Your task to perform on an android device: make emails show in primary in the gmail app Image 0: 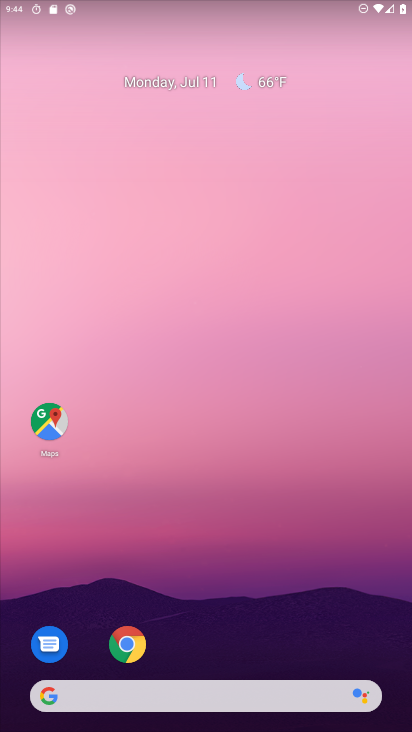
Step 0: drag from (190, 586) to (232, 150)
Your task to perform on an android device: make emails show in primary in the gmail app Image 1: 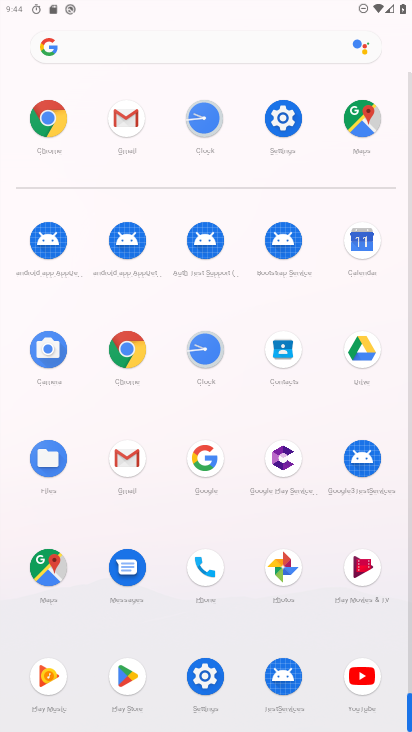
Step 1: click (133, 119)
Your task to perform on an android device: make emails show in primary in the gmail app Image 2: 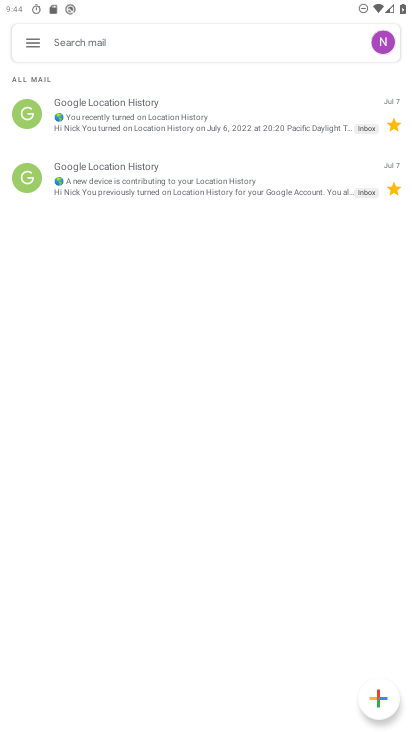
Step 2: click (36, 42)
Your task to perform on an android device: make emails show in primary in the gmail app Image 3: 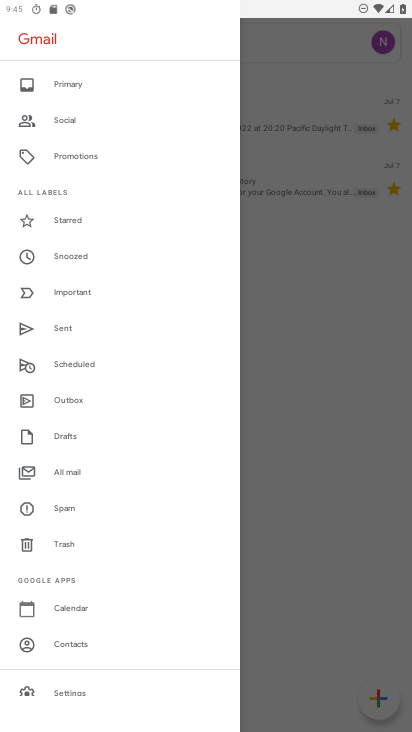
Step 3: drag from (115, 648) to (165, 225)
Your task to perform on an android device: make emails show in primary in the gmail app Image 4: 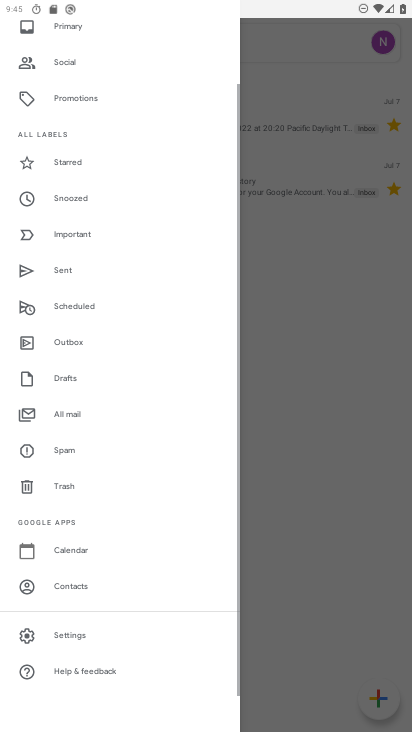
Step 4: click (78, 636)
Your task to perform on an android device: make emails show in primary in the gmail app Image 5: 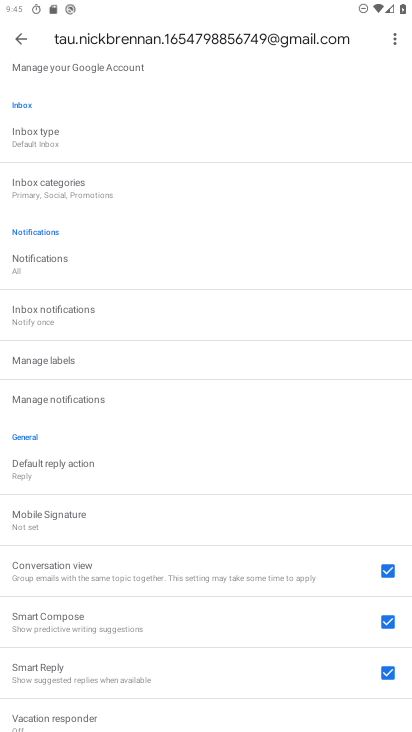
Step 5: drag from (149, 126) to (172, 555)
Your task to perform on an android device: make emails show in primary in the gmail app Image 6: 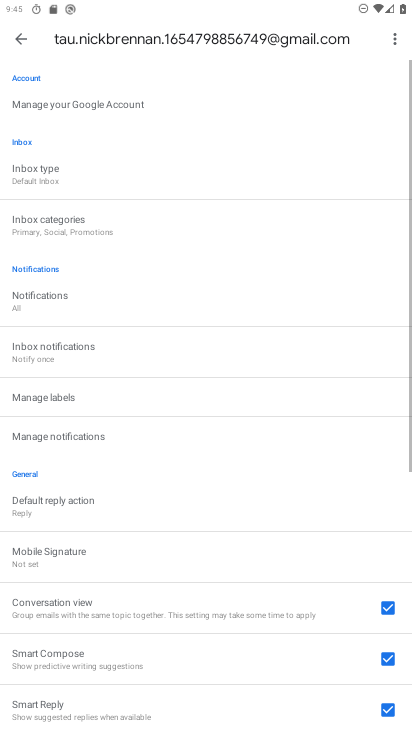
Step 6: click (70, 225)
Your task to perform on an android device: make emails show in primary in the gmail app Image 7: 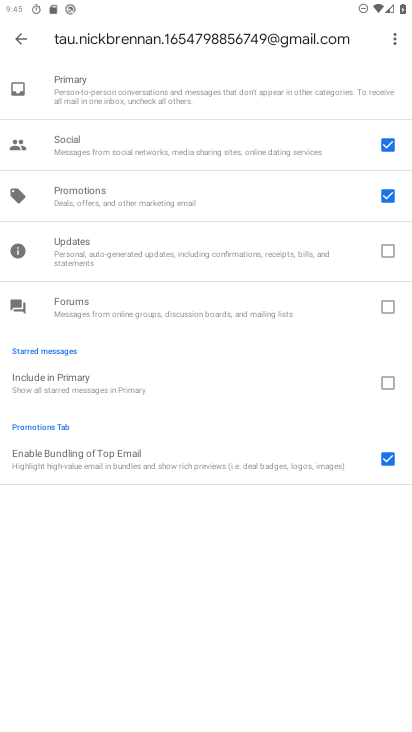
Step 7: task complete